Your task to perform on an android device: Show me the alarms in the clock app Image 0: 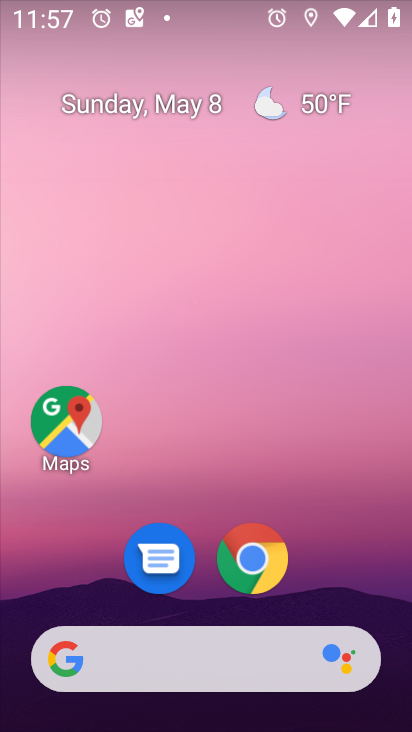
Step 0: drag from (234, 646) to (329, 132)
Your task to perform on an android device: Show me the alarms in the clock app Image 1: 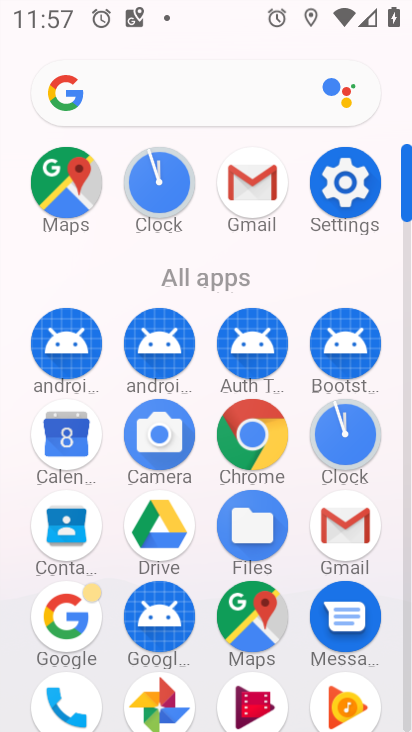
Step 1: click (158, 197)
Your task to perform on an android device: Show me the alarms in the clock app Image 2: 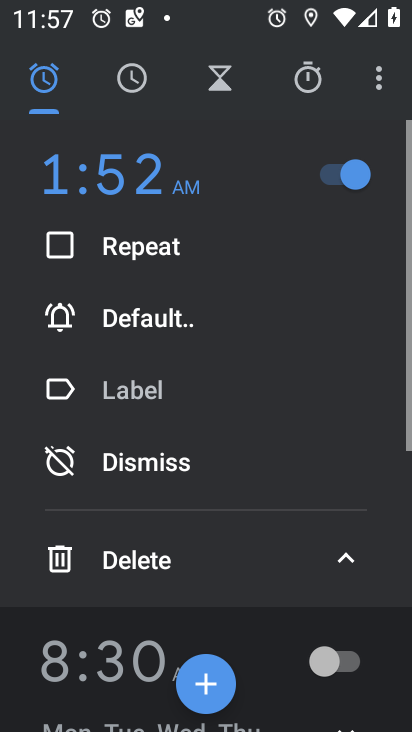
Step 2: task complete